Your task to perform on an android device: When is my next appointment? Image 0: 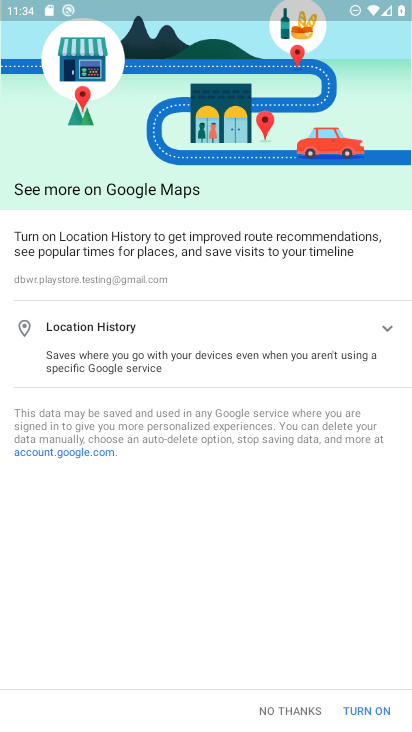
Step 0: press home button
Your task to perform on an android device: When is my next appointment? Image 1: 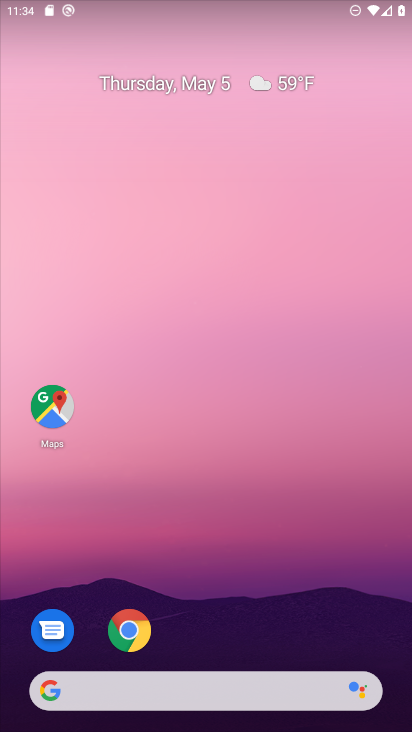
Step 1: drag from (302, 592) to (306, 73)
Your task to perform on an android device: When is my next appointment? Image 2: 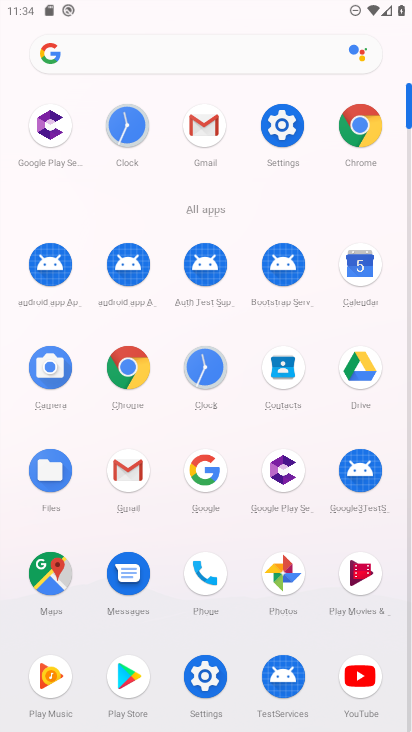
Step 2: click (359, 251)
Your task to perform on an android device: When is my next appointment? Image 3: 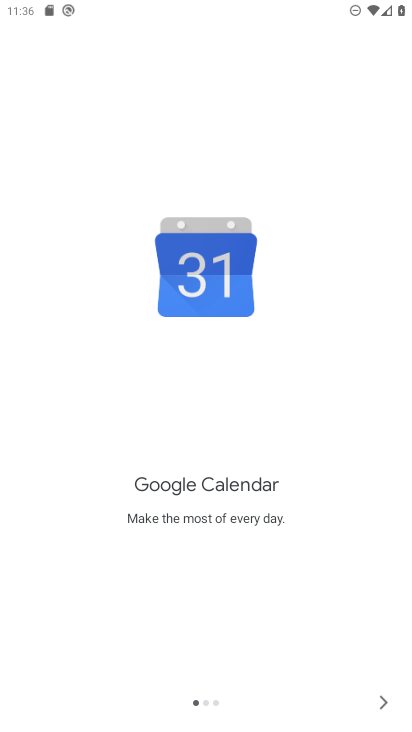
Step 3: click (386, 699)
Your task to perform on an android device: When is my next appointment? Image 4: 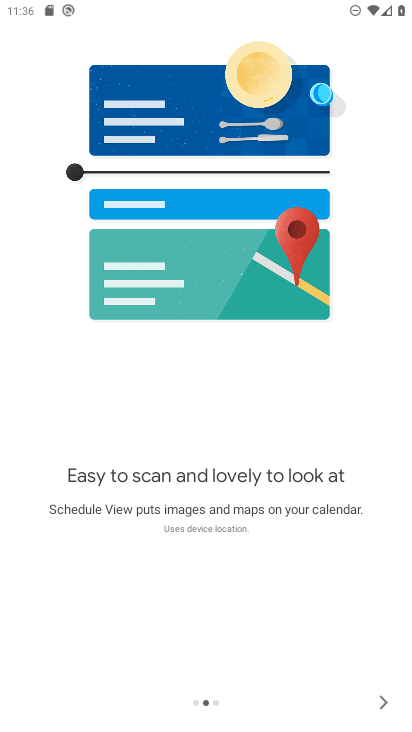
Step 4: click (386, 699)
Your task to perform on an android device: When is my next appointment? Image 5: 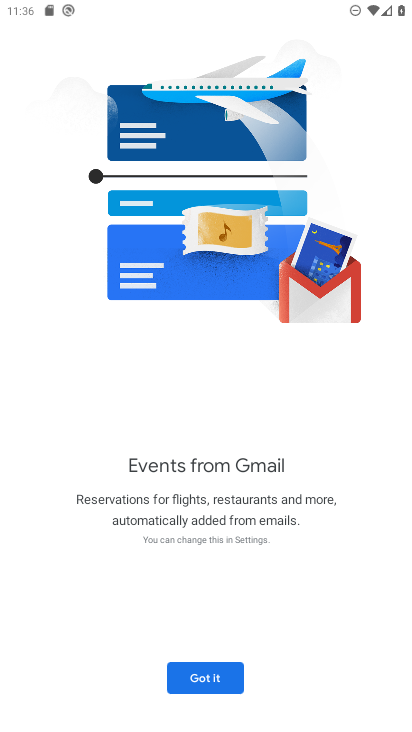
Step 5: click (386, 699)
Your task to perform on an android device: When is my next appointment? Image 6: 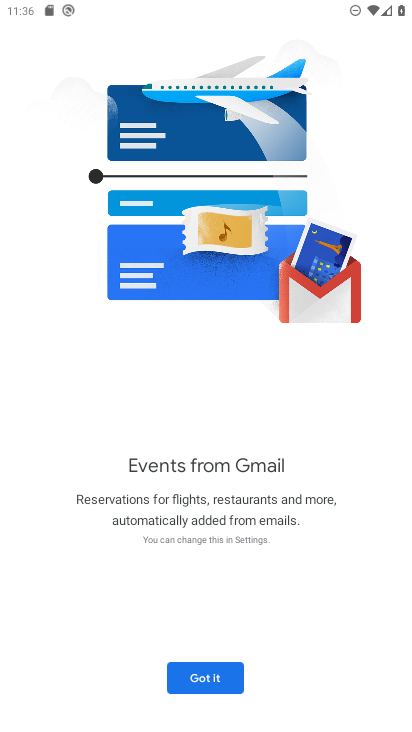
Step 6: click (189, 677)
Your task to perform on an android device: When is my next appointment? Image 7: 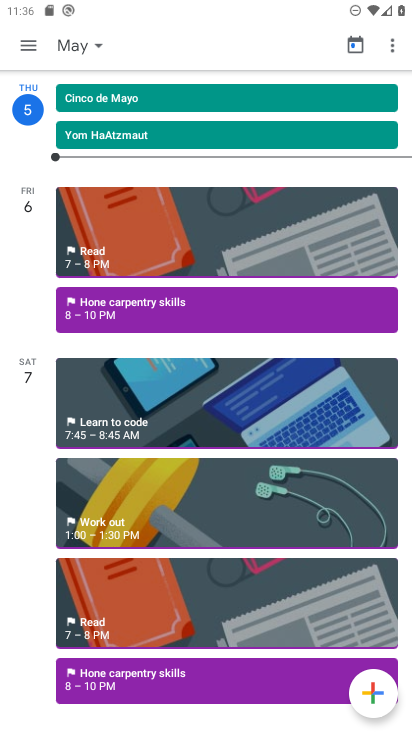
Step 7: task complete